Your task to perform on an android device: refresh tabs in the chrome app Image 0: 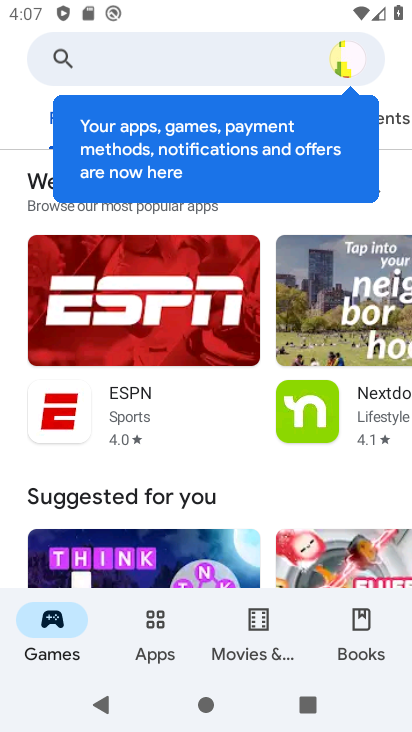
Step 0: press home button
Your task to perform on an android device: refresh tabs in the chrome app Image 1: 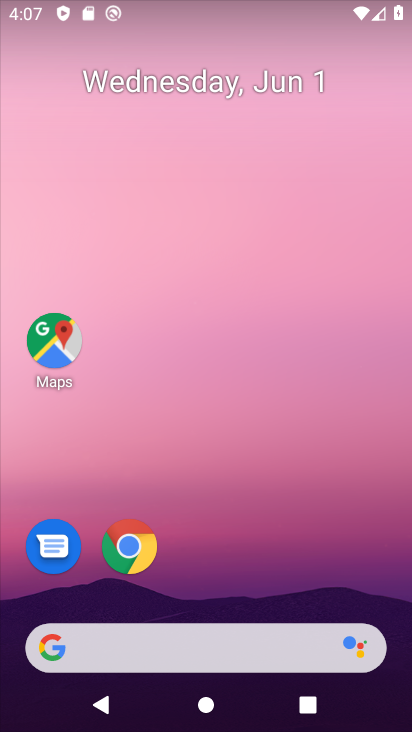
Step 1: click (121, 549)
Your task to perform on an android device: refresh tabs in the chrome app Image 2: 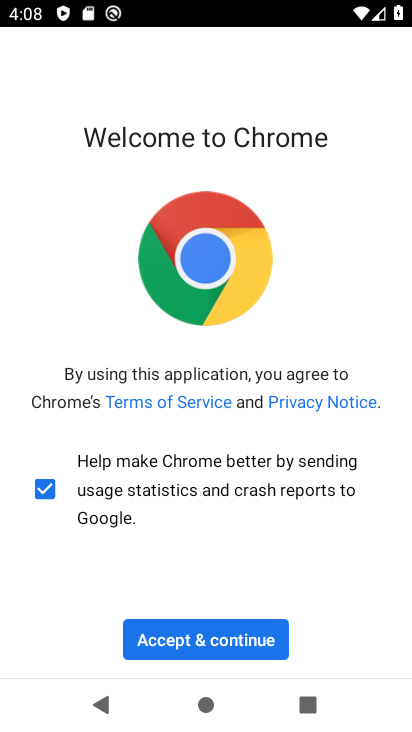
Step 2: click (174, 651)
Your task to perform on an android device: refresh tabs in the chrome app Image 3: 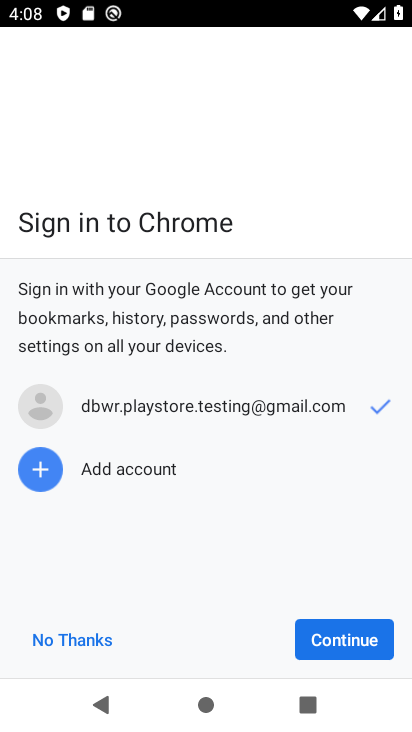
Step 3: click (344, 637)
Your task to perform on an android device: refresh tabs in the chrome app Image 4: 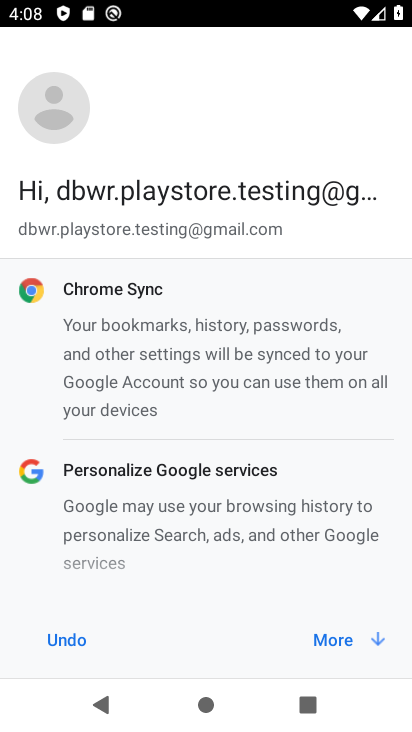
Step 4: click (365, 637)
Your task to perform on an android device: refresh tabs in the chrome app Image 5: 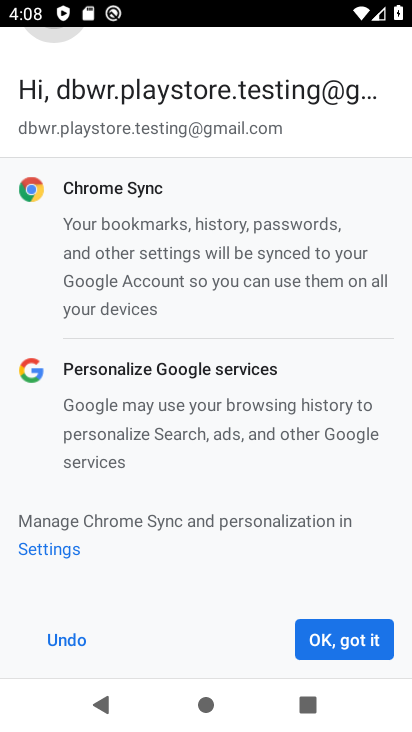
Step 5: click (343, 637)
Your task to perform on an android device: refresh tabs in the chrome app Image 6: 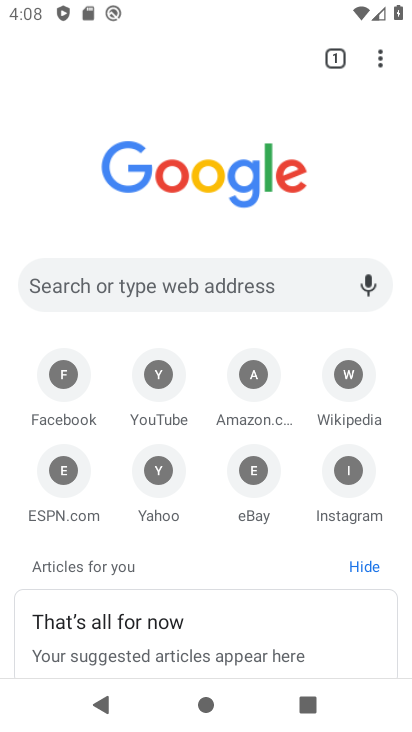
Step 6: click (378, 56)
Your task to perform on an android device: refresh tabs in the chrome app Image 7: 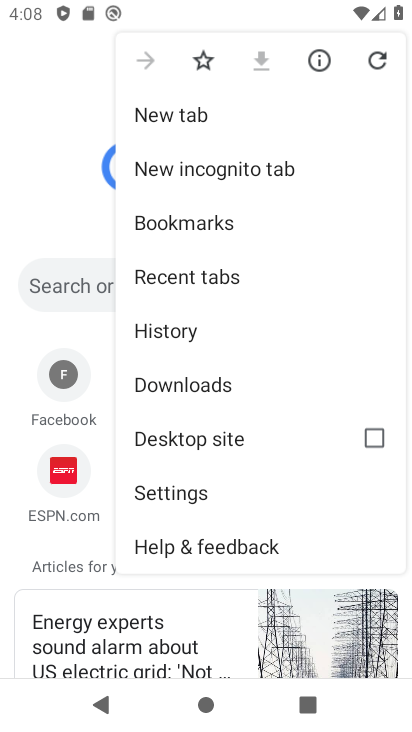
Step 7: click (384, 54)
Your task to perform on an android device: refresh tabs in the chrome app Image 8: 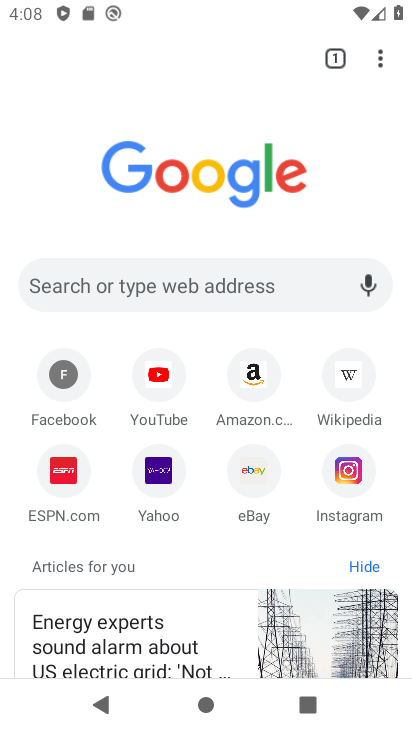
Step 8: task complete